Your task to perform on an android device: read, delete, or share a saved page in the chrome app Image 0: 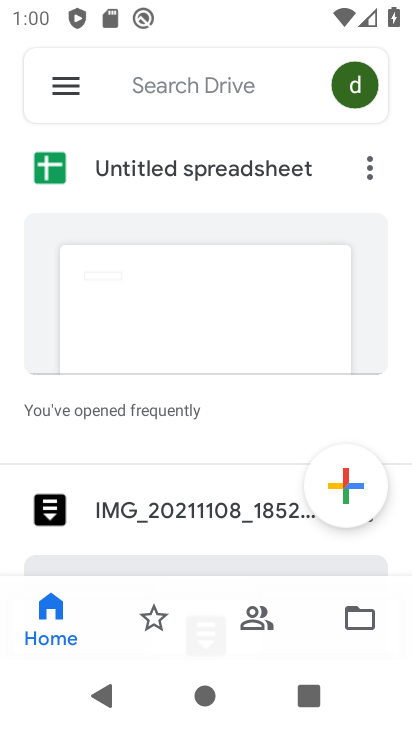
Step 0: press home button
Your task to perform on an android device: read, delete, or share a saved page in the chrome app Image 1: 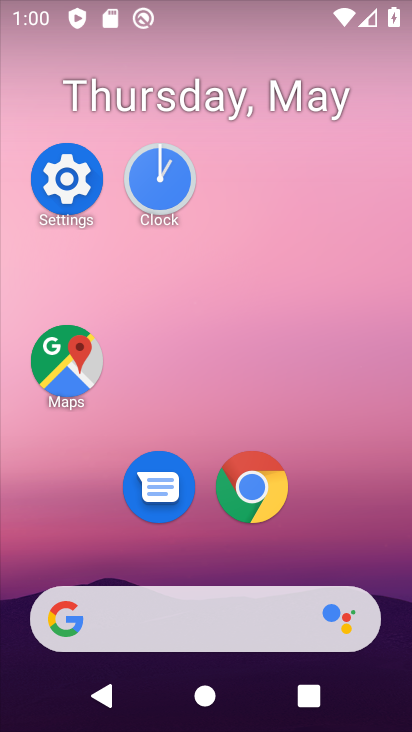
Step 1: click (243, 472)
Your task to perform on an android device: read, delete, or share a saved page in the chrome app Image 2: 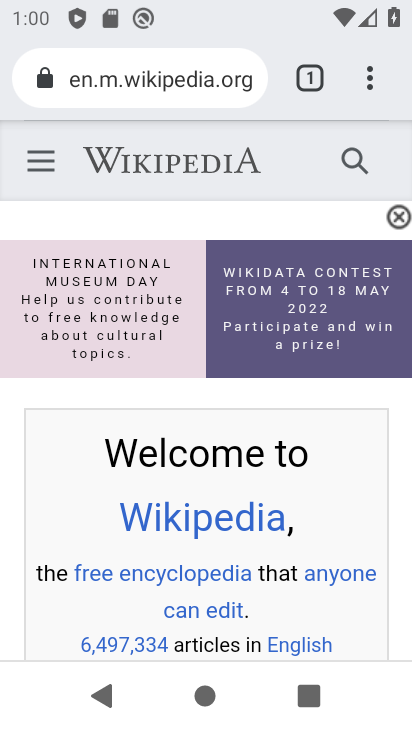
Step 2: click (367, 87)
Your task to perform on an android device: read, delete, or share a saved page in the chrome app Image 3: 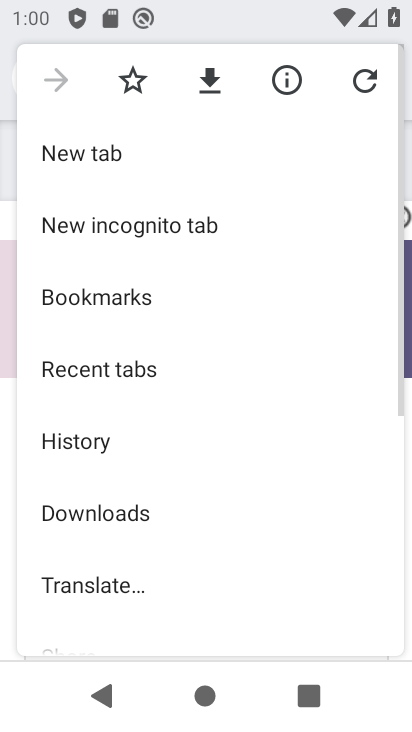
Step 3: click (121, 514)
Your task to perform on an android device: read, delete, or share a saved page in the chrome app Image 4: 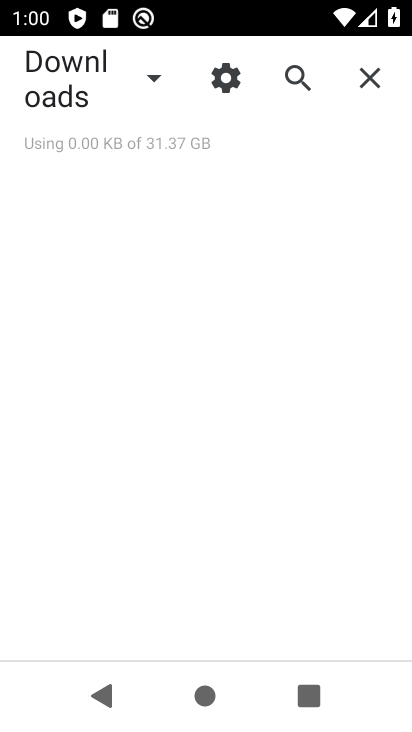
Step 4: task complete